Your task to perform on an android device: toggle wifi Image 0: 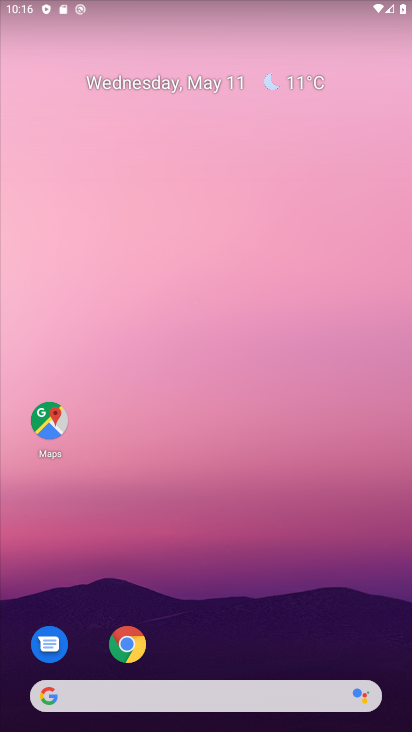
Step 0: press home button
Your task to perform on an android device: toggle wifi Image 1: 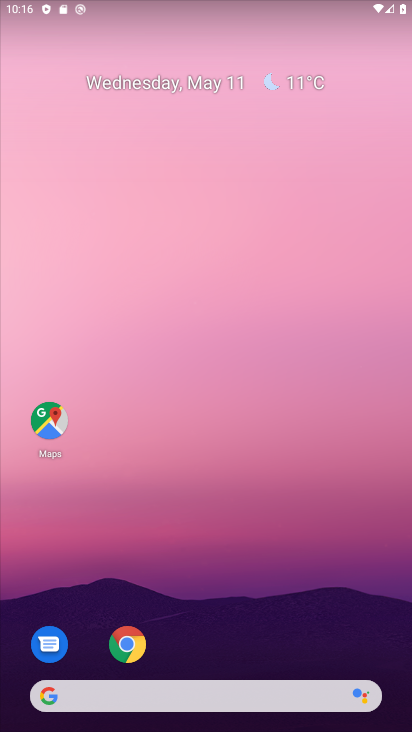
Step 1: drag from (223, 651) to (251, 117)
Your task to perform on an android device: toggle wifi Image 2: 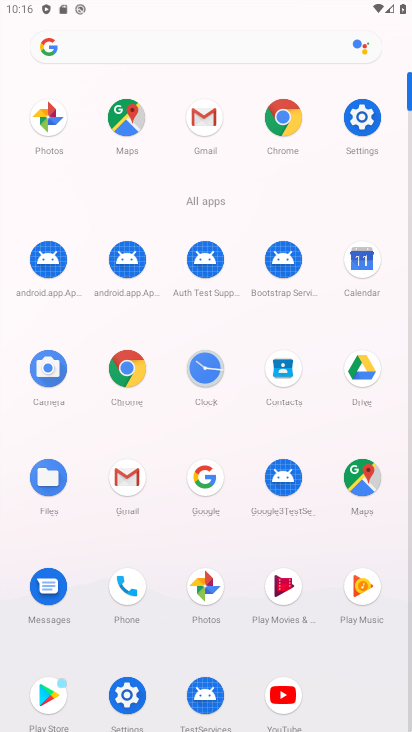
Step 2: drag from (222, 8) to (195, 595)
Your task to perform on an android device: toggle wifi Image 3: 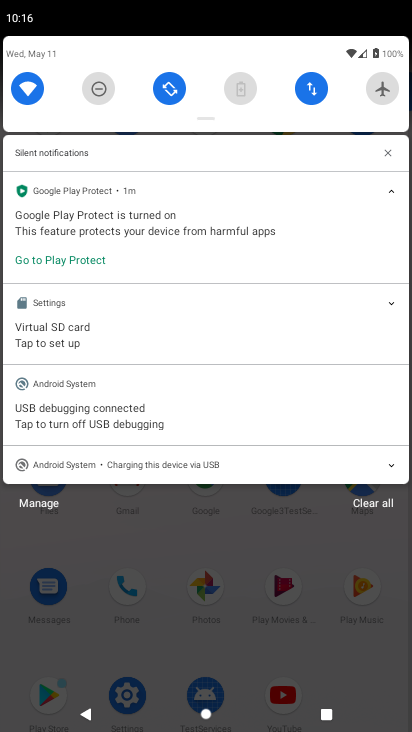
Step 3: click (29, 85)
Your task to perform on an android device: toggle wifi Image 4: 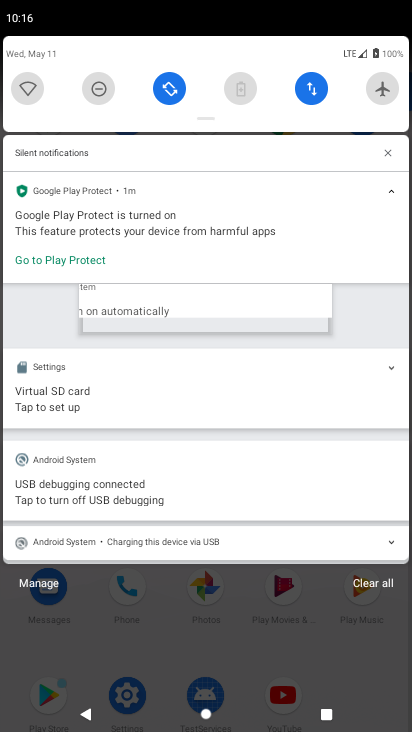
Step 4: task complete